Your task to perform on an android device: Show me productivity apps on the Play Store Image 0: 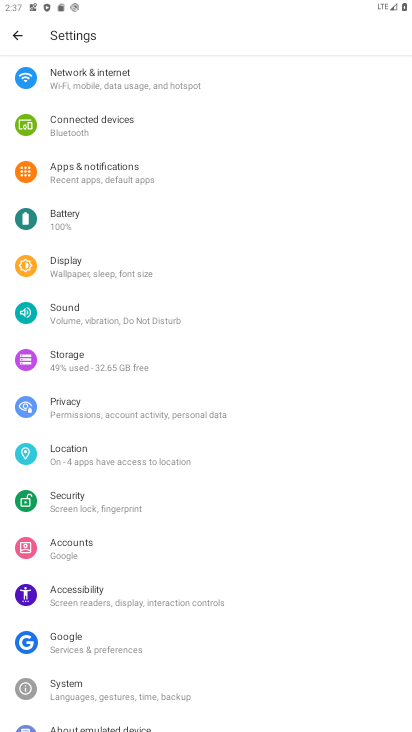
Step 0: press home button
Your task to perform on an android device: Show me productivity apps on the Play Store Image 1: 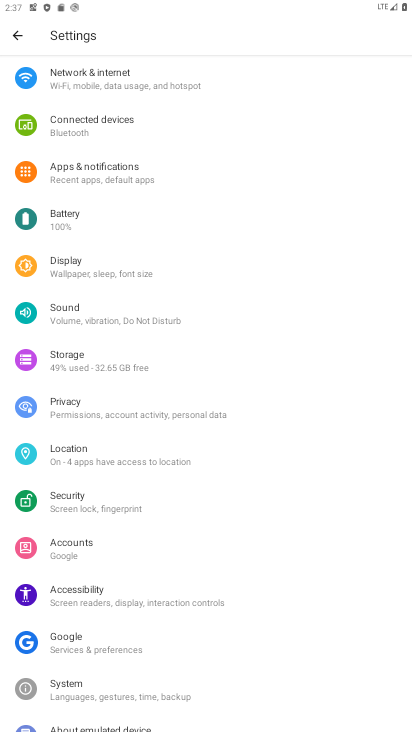
Step 1: press home button
Your task to perform on an android device: Show me productivity apps on the Play Store Image 2: 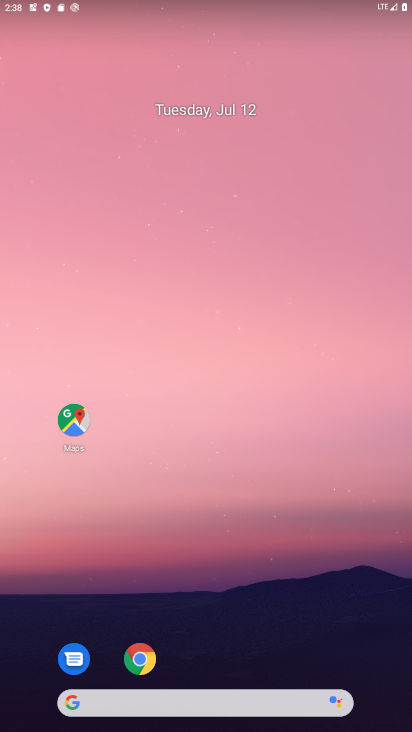
Step 2: drag from (232, 619) to (233, 79)
Your task to perform on an android device: Show me productivity apps on the Play Store Image 3: 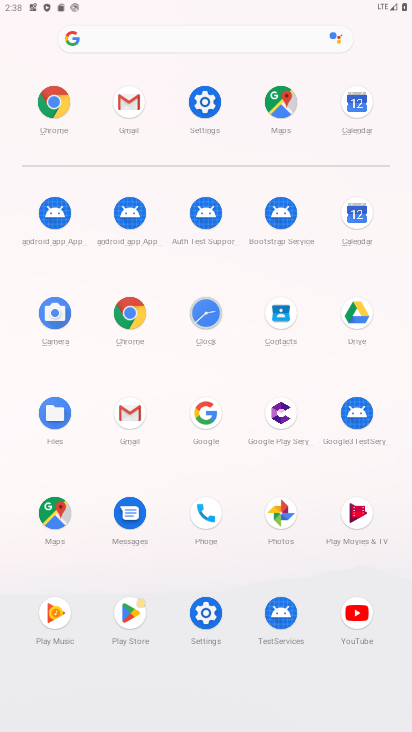
Step 3: click (116, 613)
Your task to perform on an android device: Show me productivity apps on the Play Store Image 4: 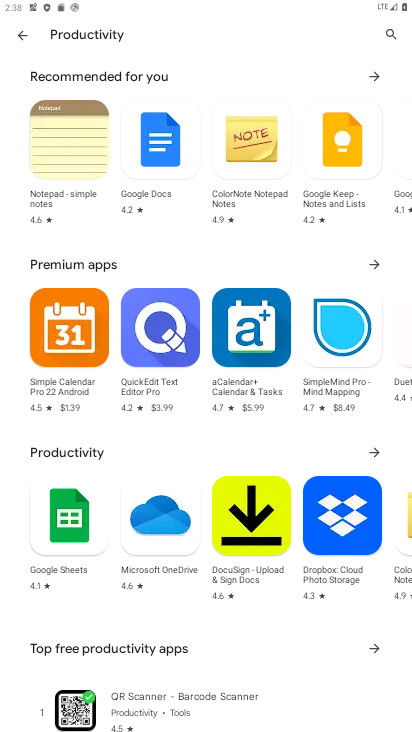
Step 4: task complete